Your task to perform on an android device: turn off airplane mode Image 0: 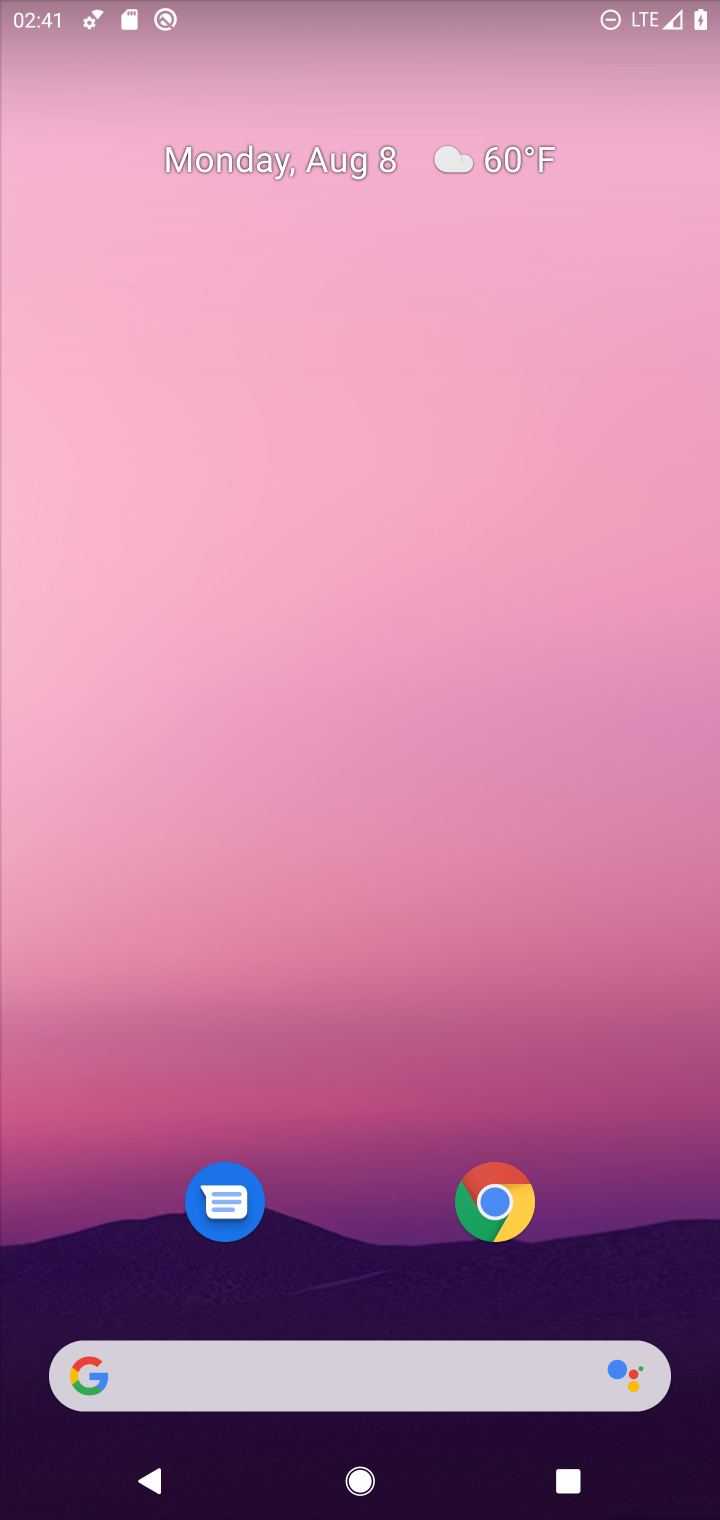
Step 0: drag from (621, 1265) to (671, 208)
Your task to perform on an android device: turn off airplane mode Image 1: 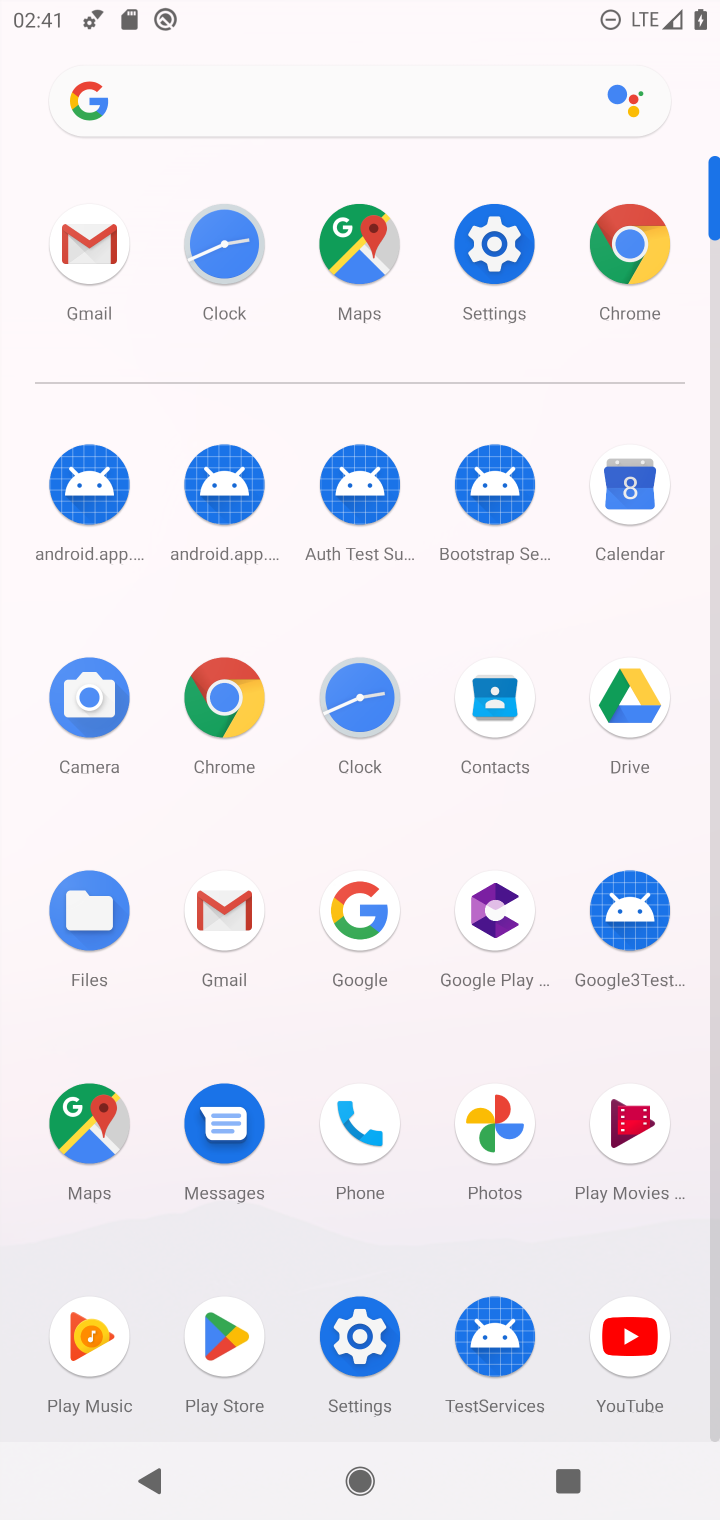
Step 1: click (497, 247)
Your task to perform on an android device: turn off airplane mode Image 2: 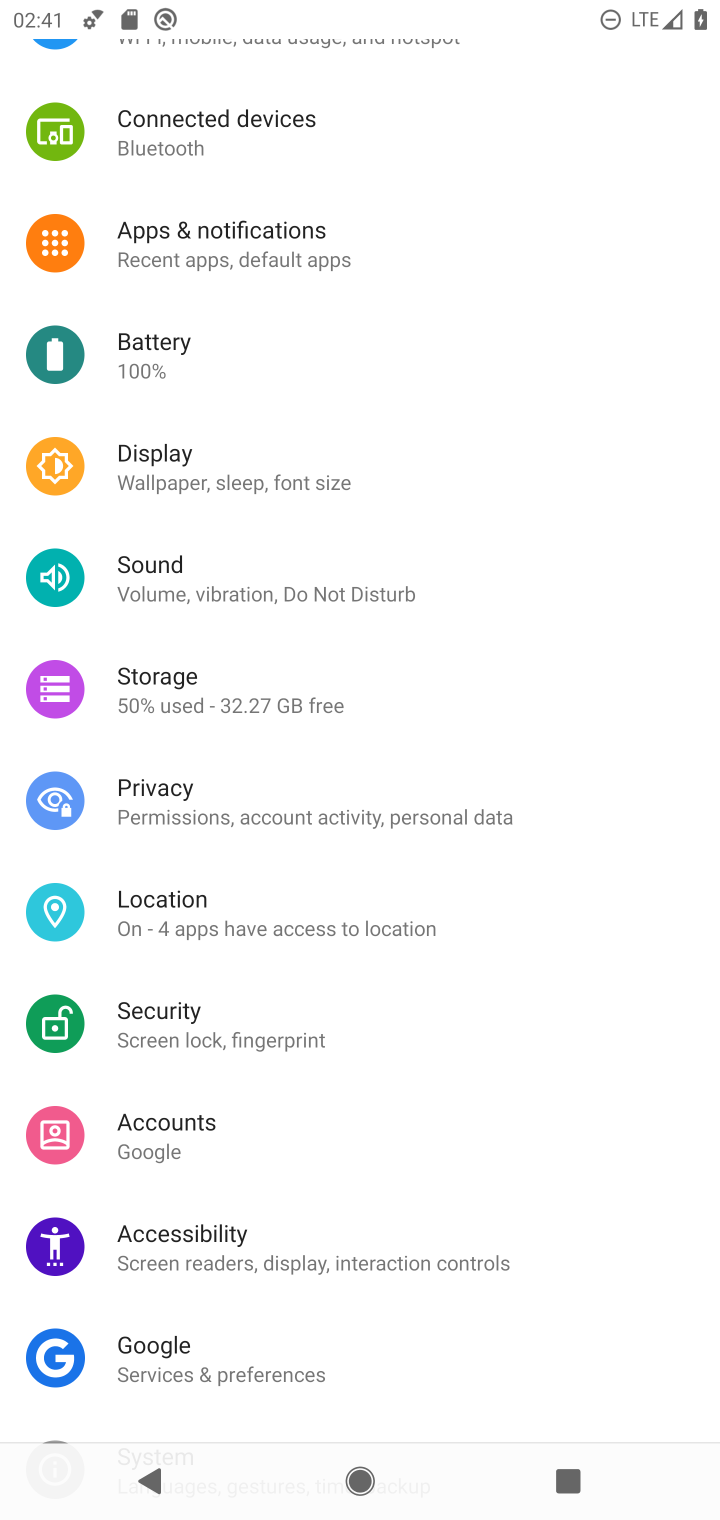
Step 2: drag from (599, 298) to (600, 638)
Your task to perform on an android device: turn off airplane mode Image 3: 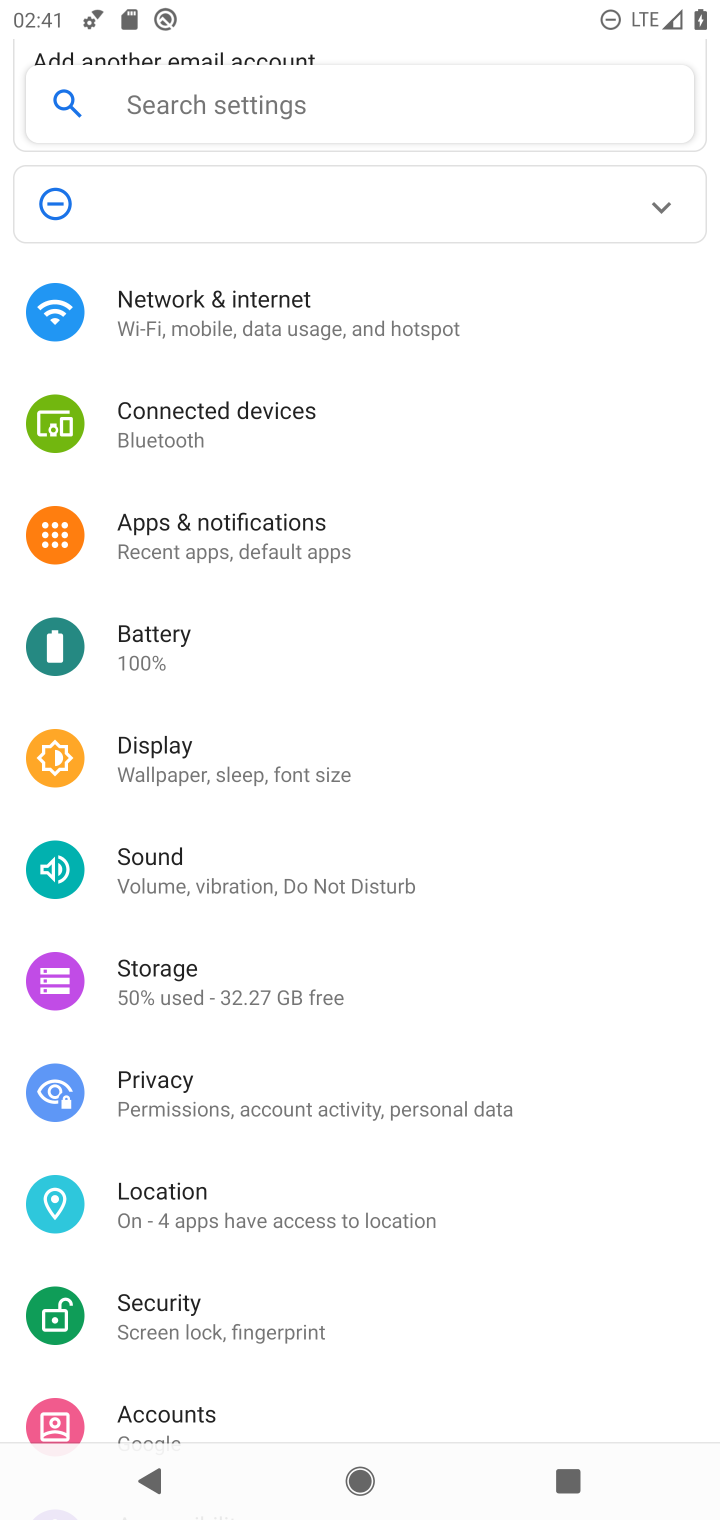
Step 3: drag from (585, 253) to (580, 651)
Your task to perform on an android device: turn off airplane mode Image 4: 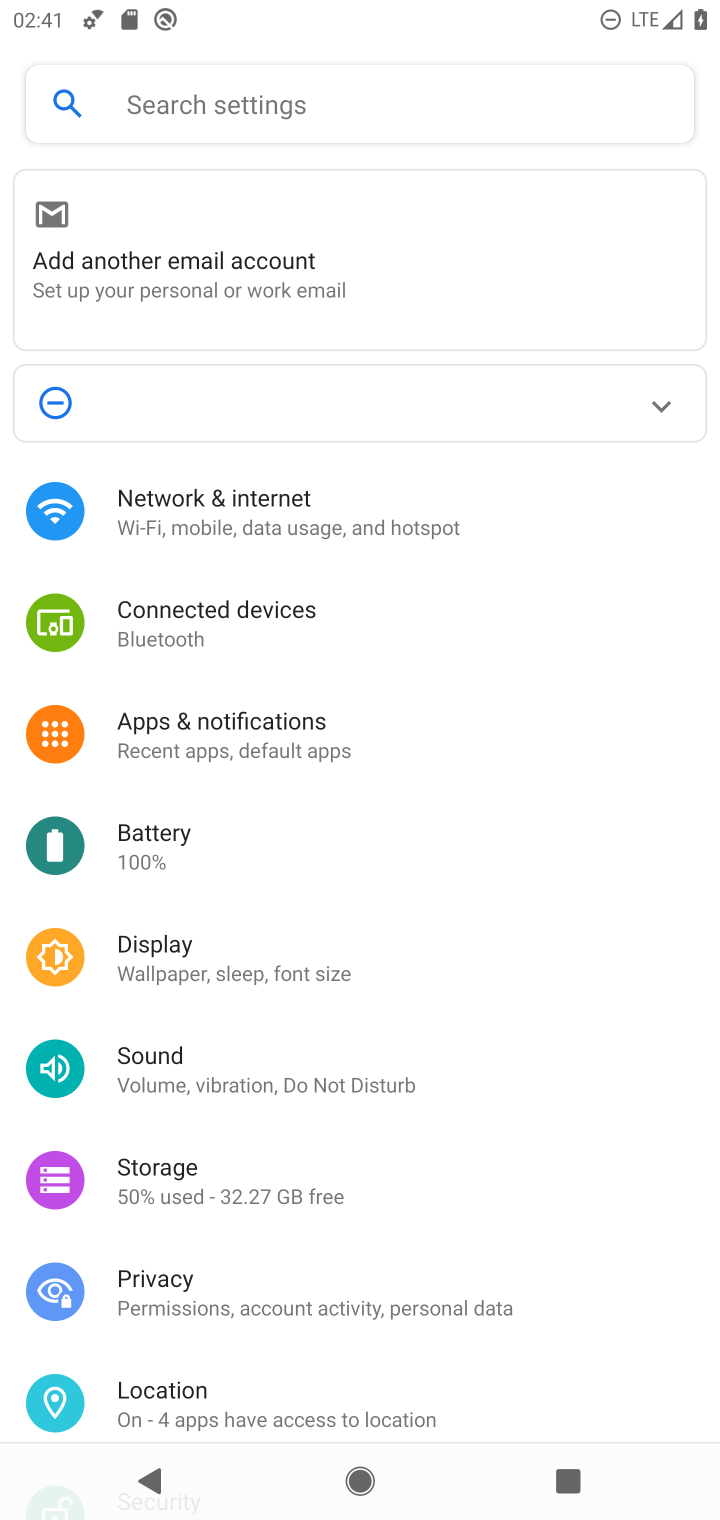
Step 4: click (450, 507)
Your task to perform on an android device: turn off airplane mode Image 5: 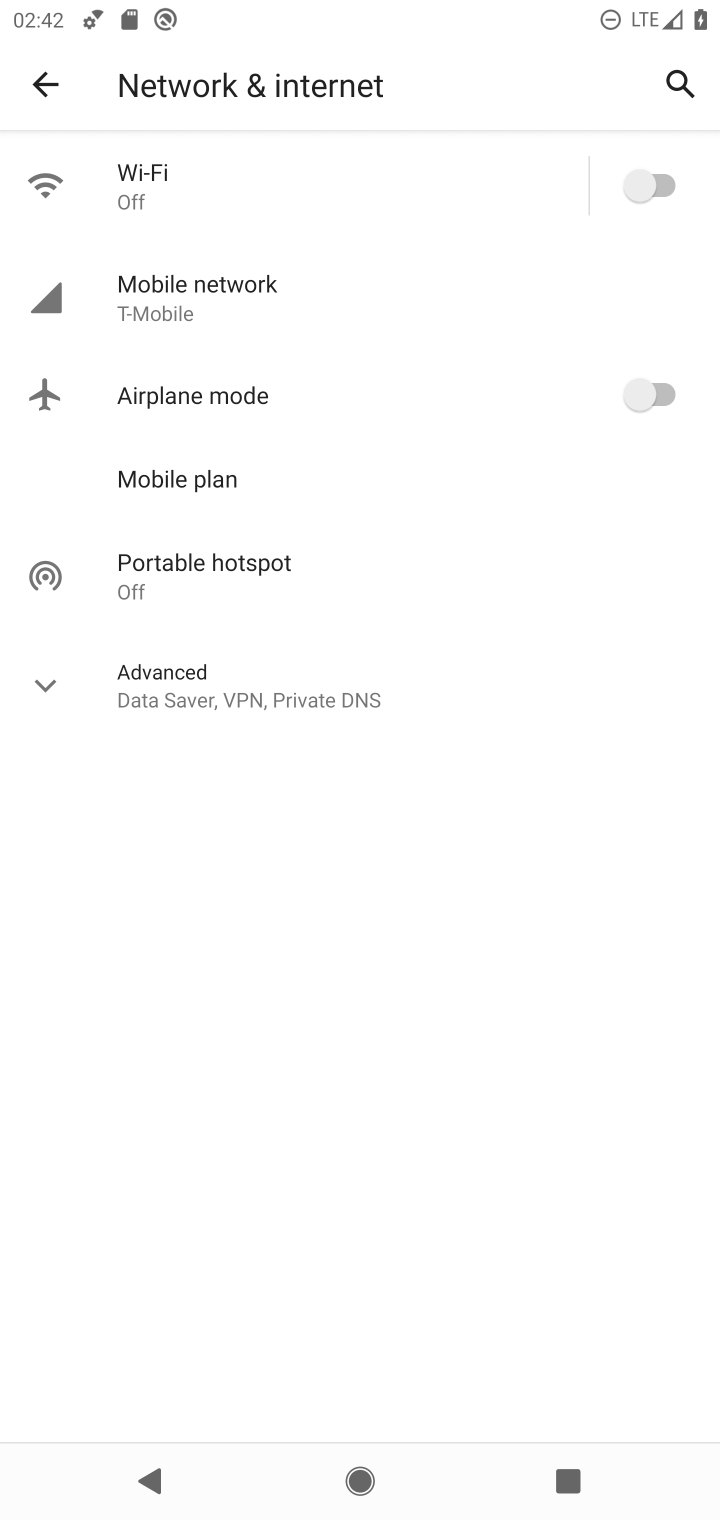
Step 5: task complete